Your task to perform on an android device: change timer sound Image 0: 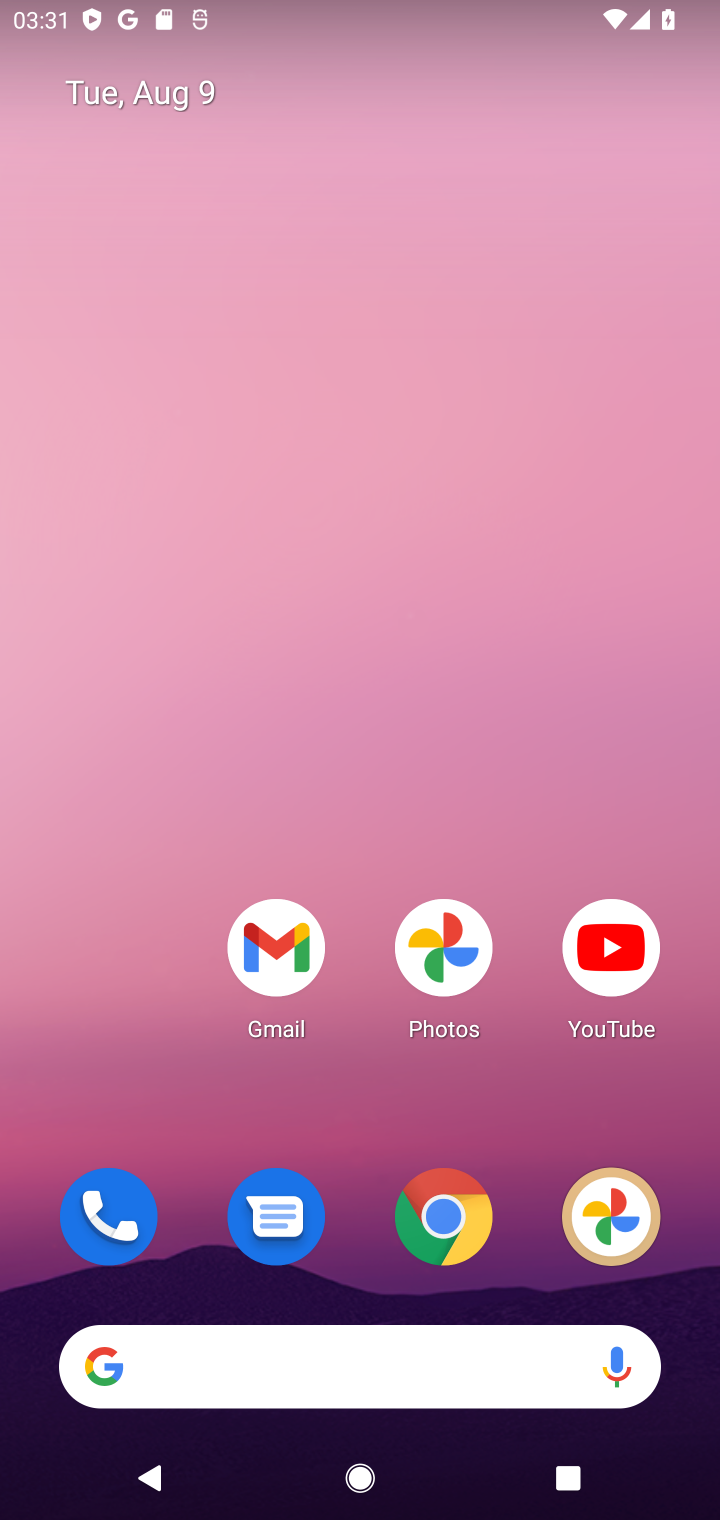
Step 0: drag from (342, 1086) to (342, 382)
Your task to perform on an android device: change timer sound Image 1: 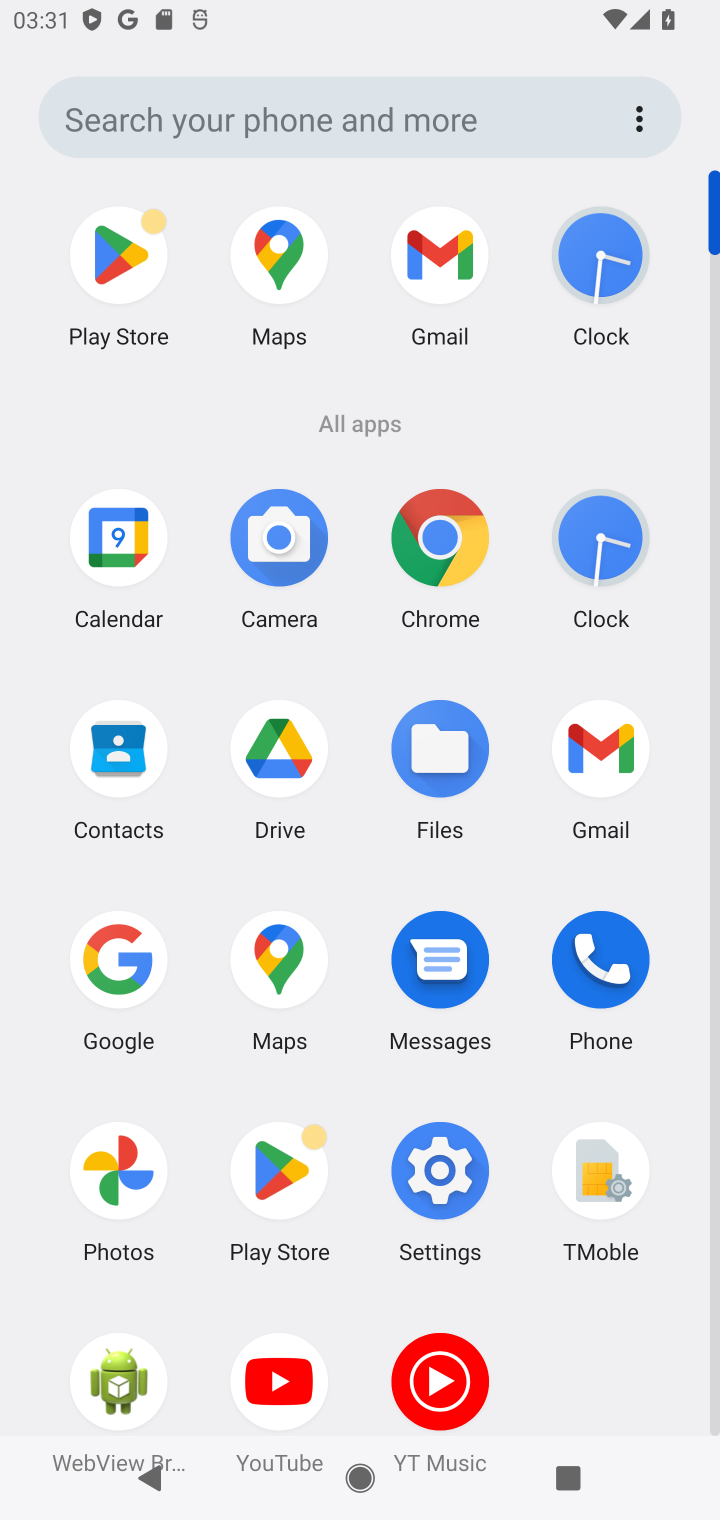
Step 1: click (603, 260)
Your task to perform on an android device: change timer sound Image 2: 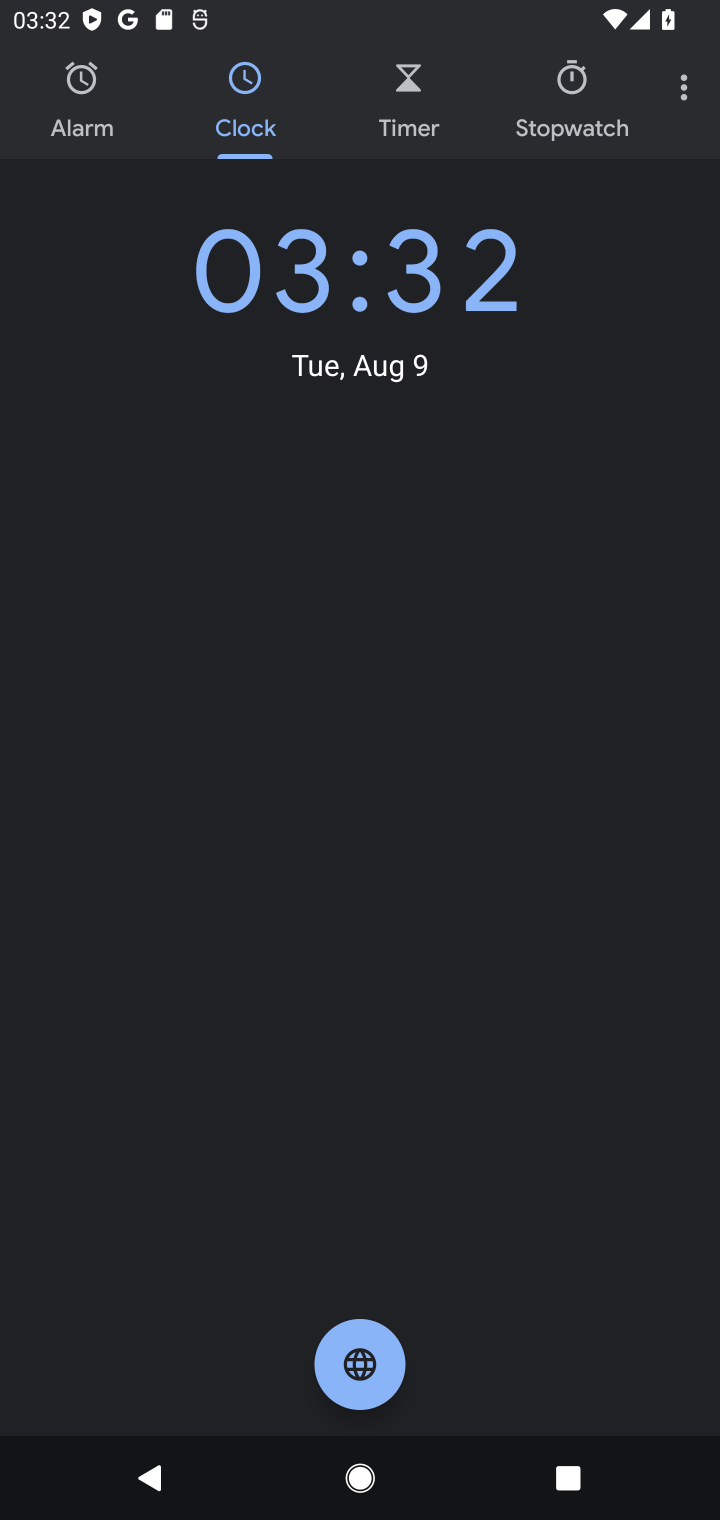
Step 2: click (674, 83)
Your task to perform on an android device: change timer sound Image 3: 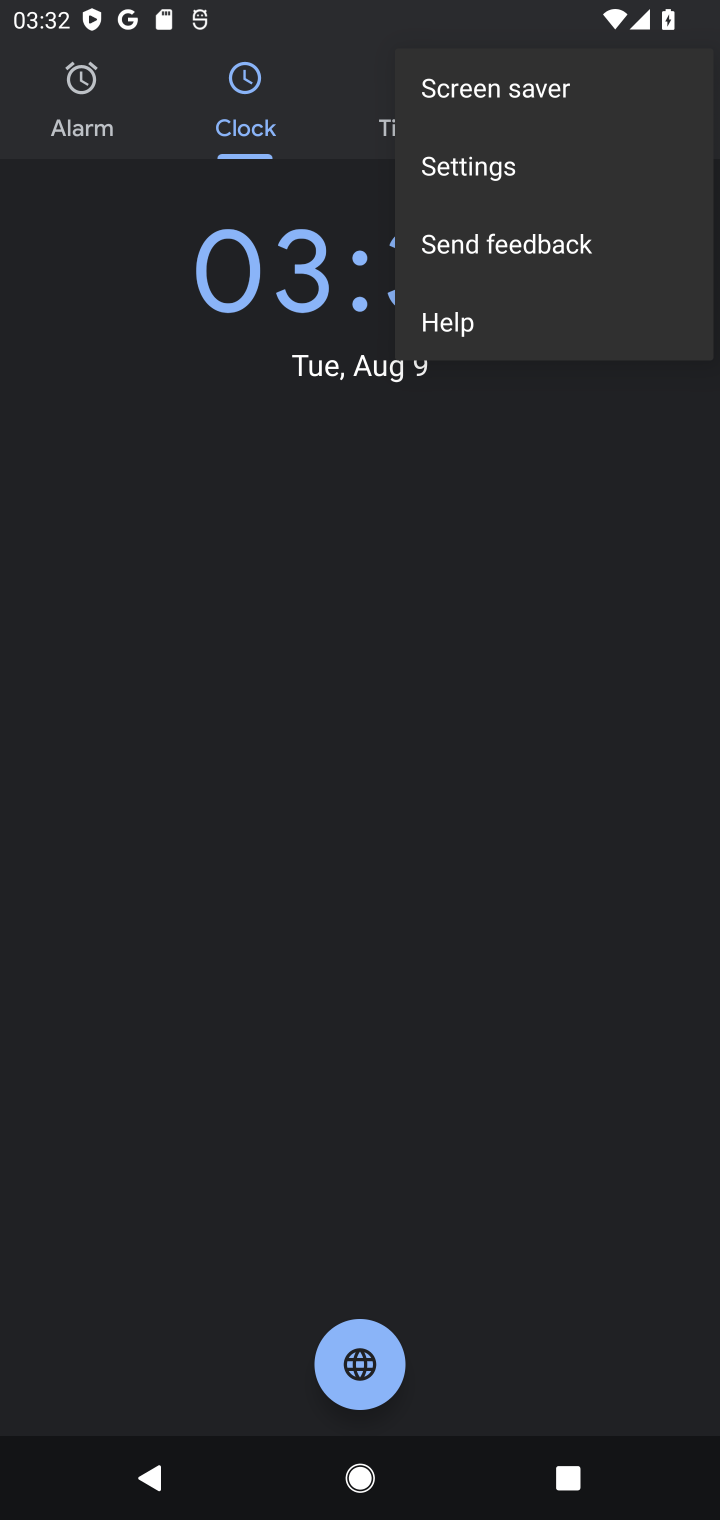
Step 3: click (469, 180)
Your task to perform on an android device: change timer sound Image 4: 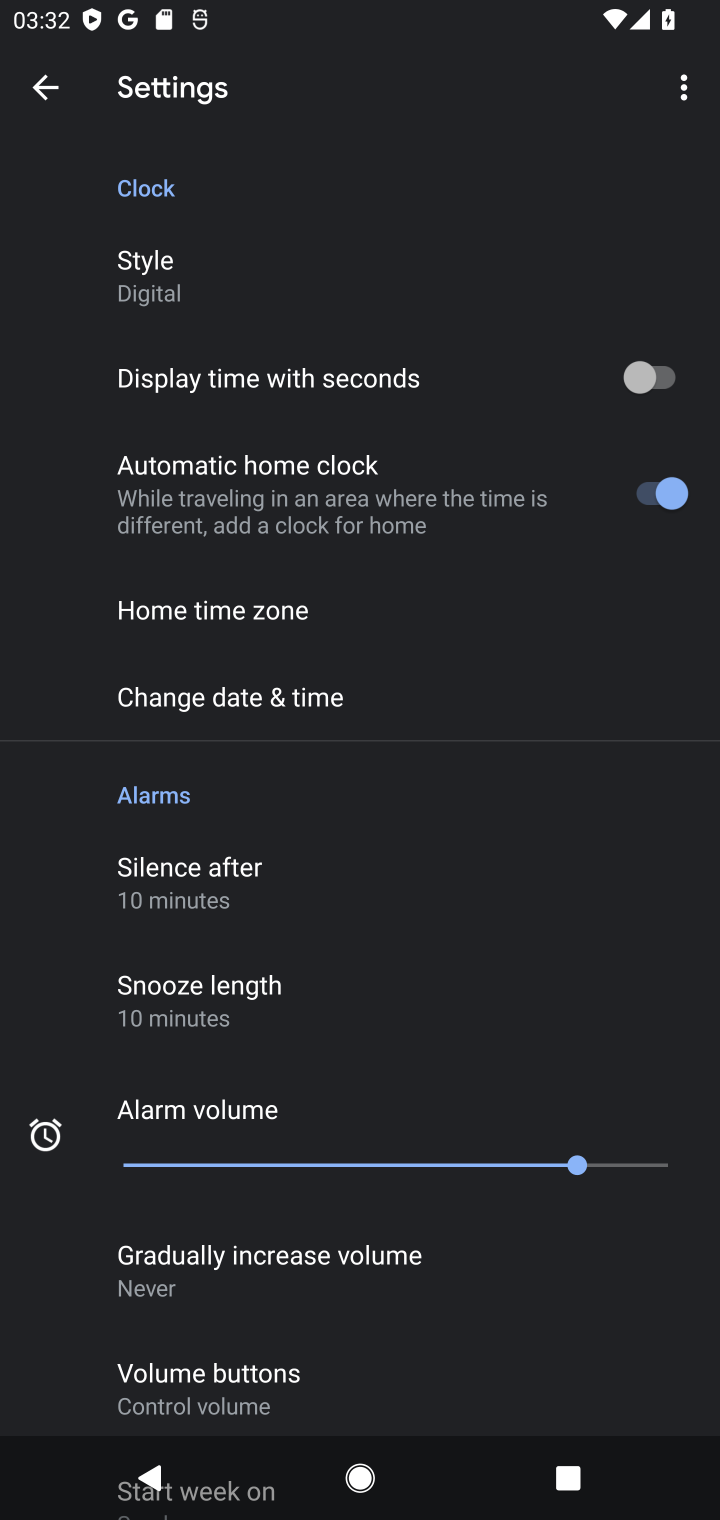
Step 4: drag from (314, 1048) to (237, 249)
Your task to perform on an android device: change timer sound Image 5: 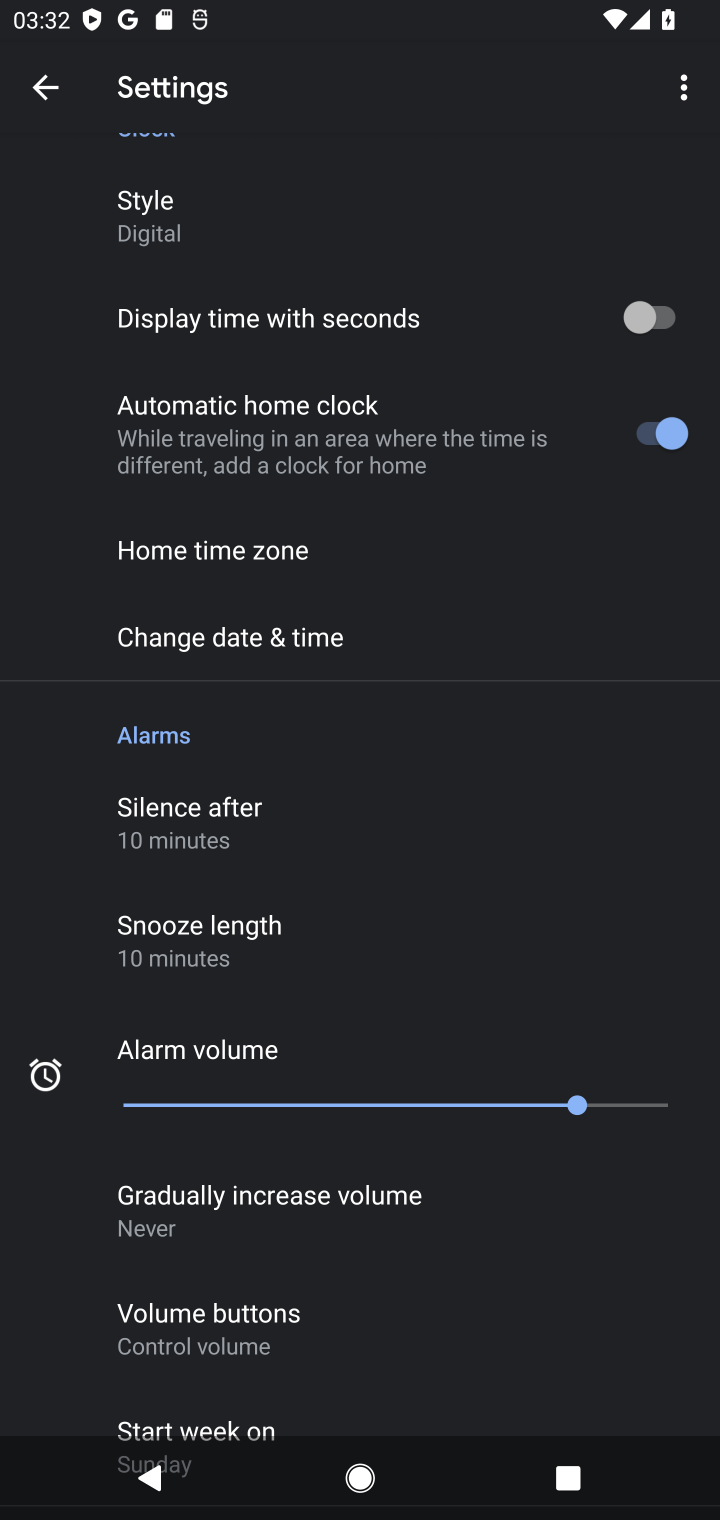
Step 5: drag from (249, 1290) to (204, 619)
Your task to perform on an android device: change timer sound Image 6: 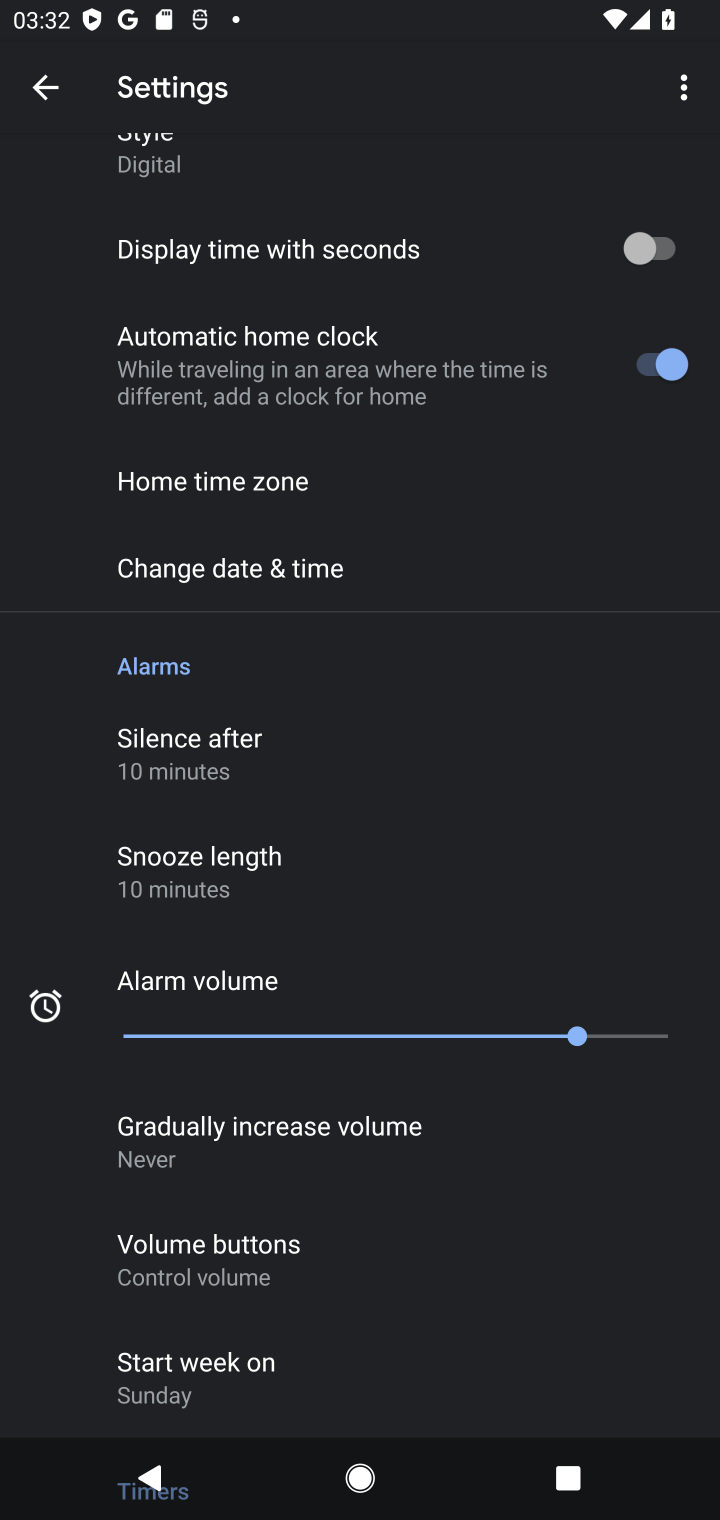
Step 6: drag from (290, 1299) to (232, 577)
Your task to perform on an android device: change timer sound Image 7: 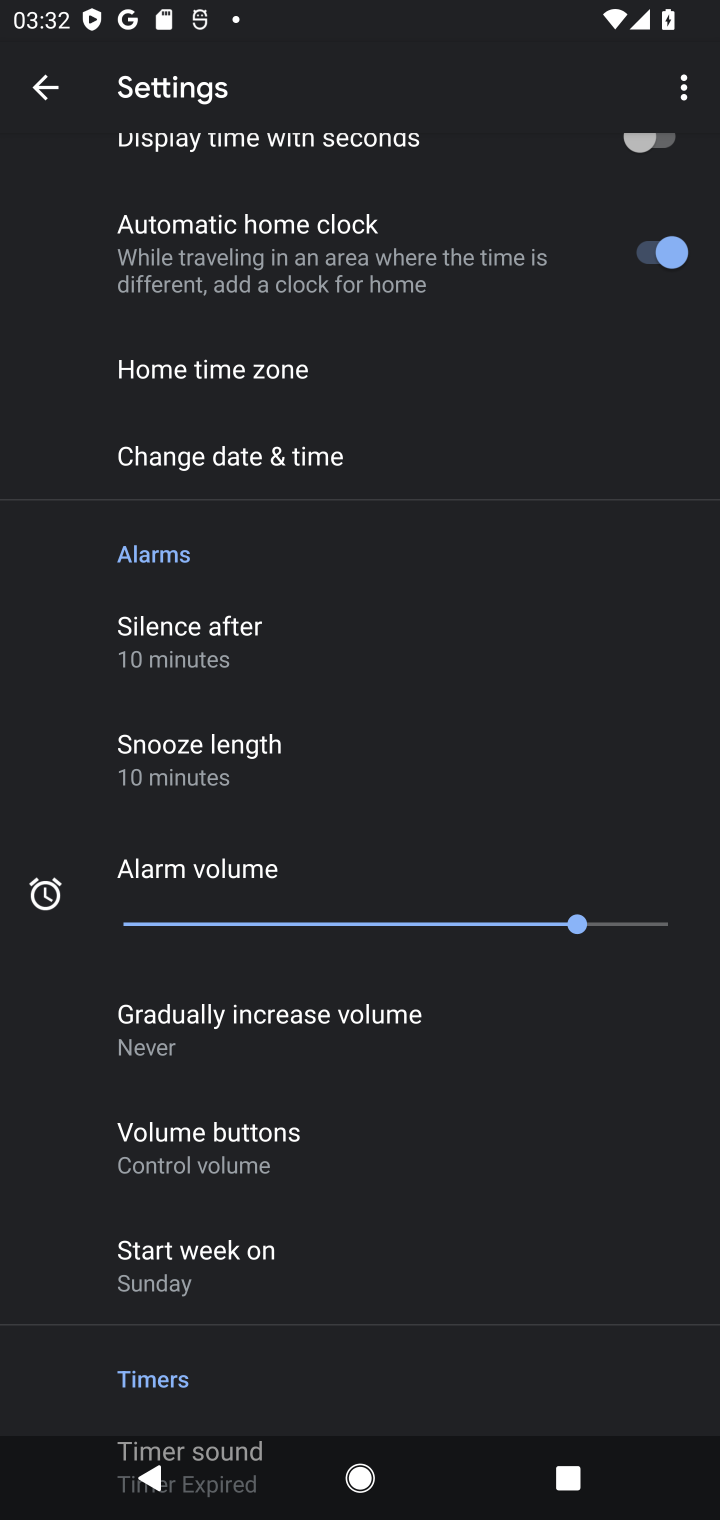
Step 7: drag from (314, 1251) to (314, 282)
Your task to perform on an android device: change timer sound Image 8: 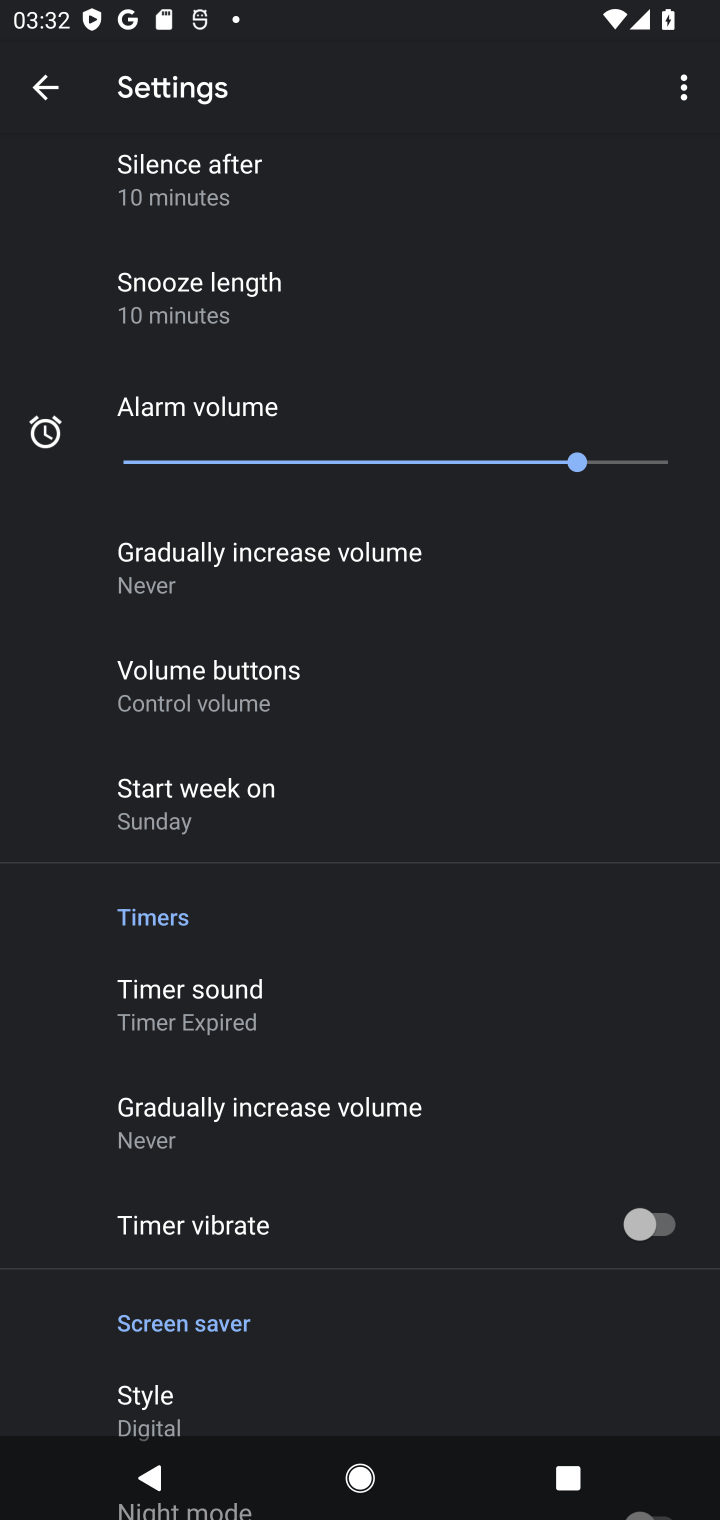
Step 8: click (255, 989)
Your task to perform on an android device: change timer sound Image 9: 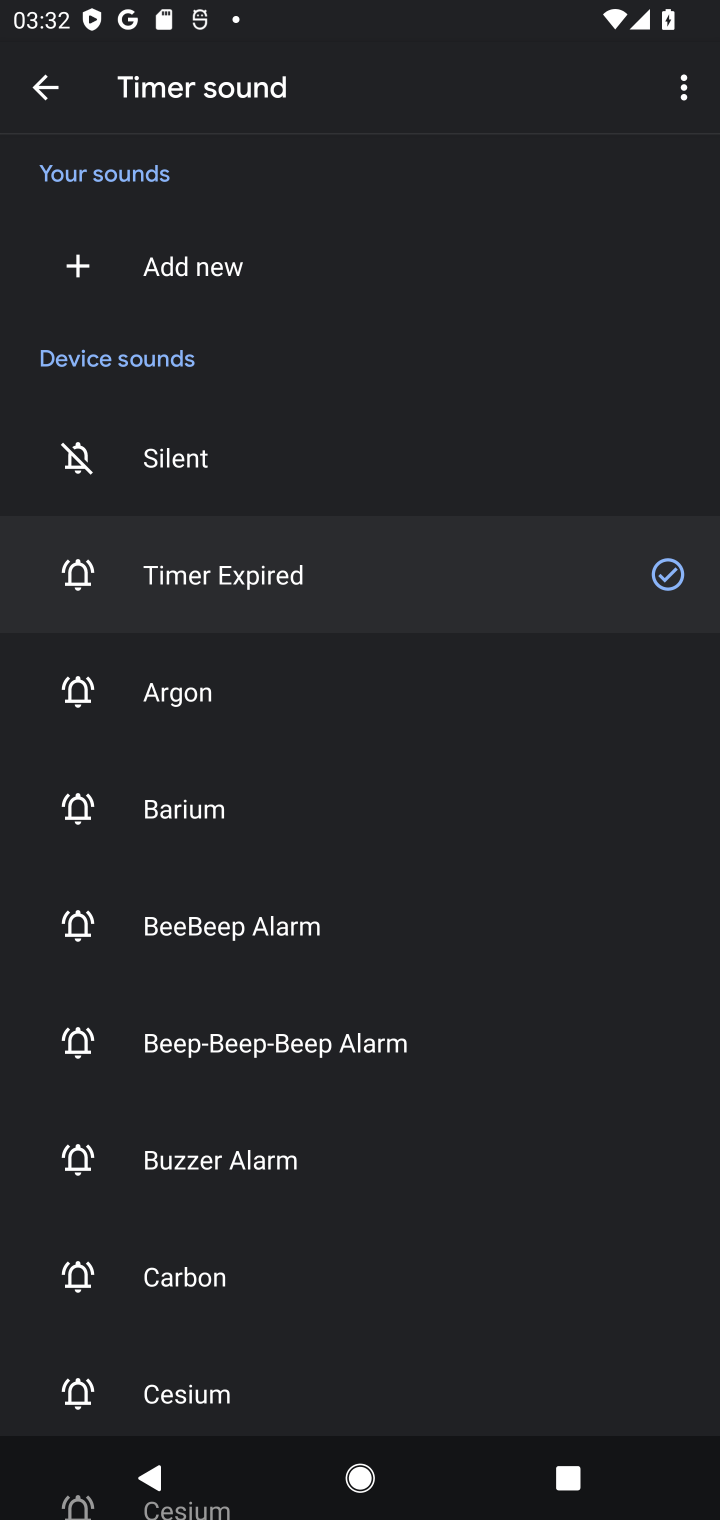
Step 9: click (371, 985)
Your task to perform on an android device: change timer sound Image 10: 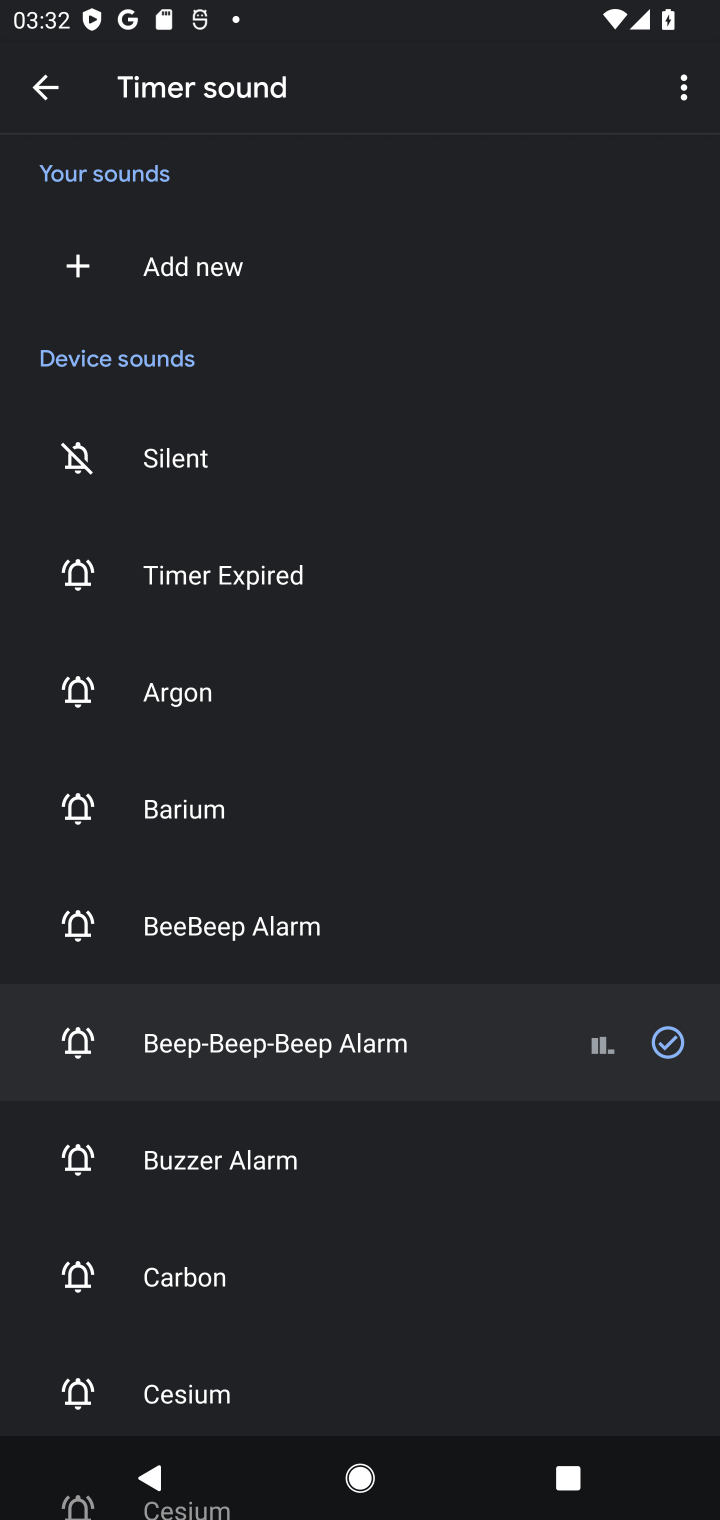
Step 10: task complete